Your task to perform on an android device: Go to notification settings Image 0: 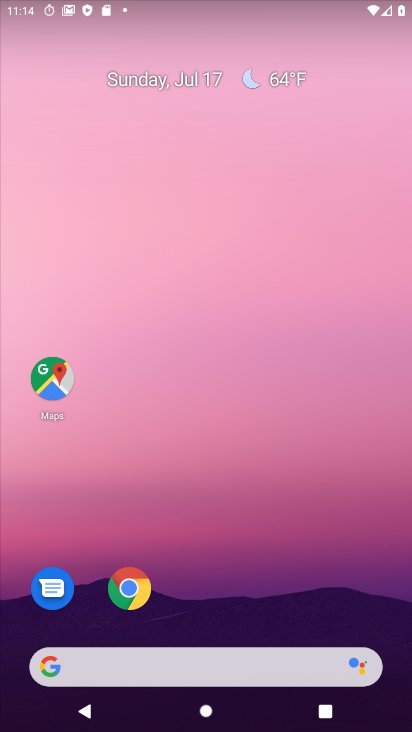
Step 0: drag from (284, 645) to (345, 199)
Your task to perform on an android device: Go to notification settings Image 1: 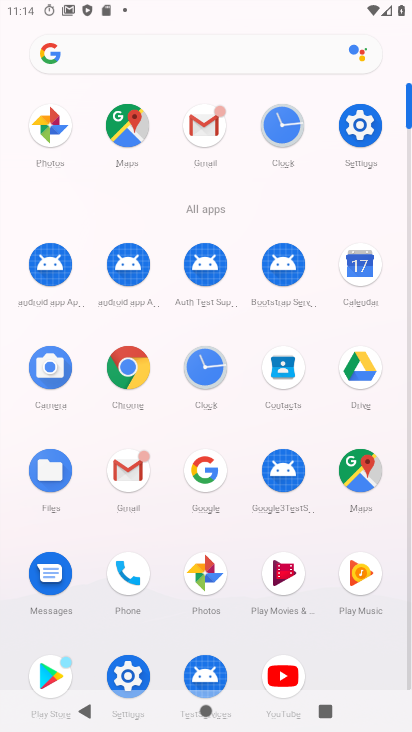
Step 1: click (118, 672)
Your task to perform on an android device: Go to notification settings Image 2: 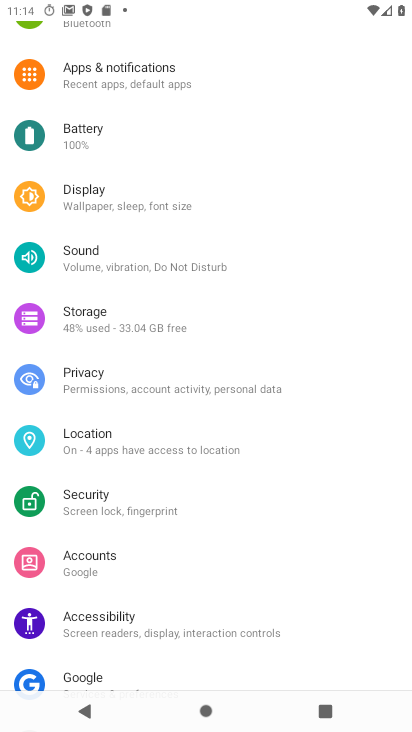
Step 2: click (156, 86)
Your task to perform on an android device: Go to notification settings Image 3: 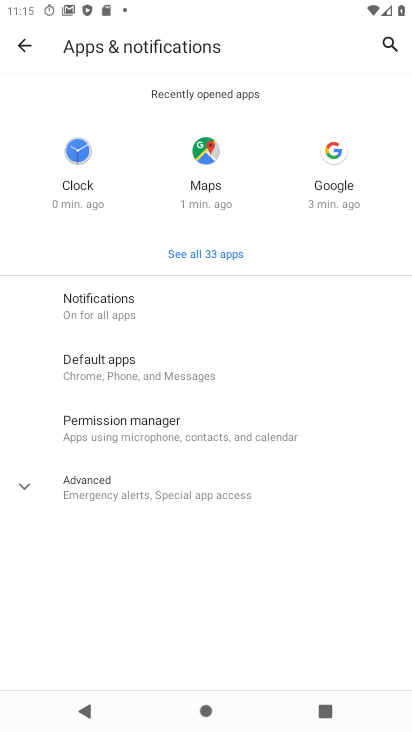
Step 3: click (160, 301)
Your task to perform on an android device: Go to notification settings Image 4: 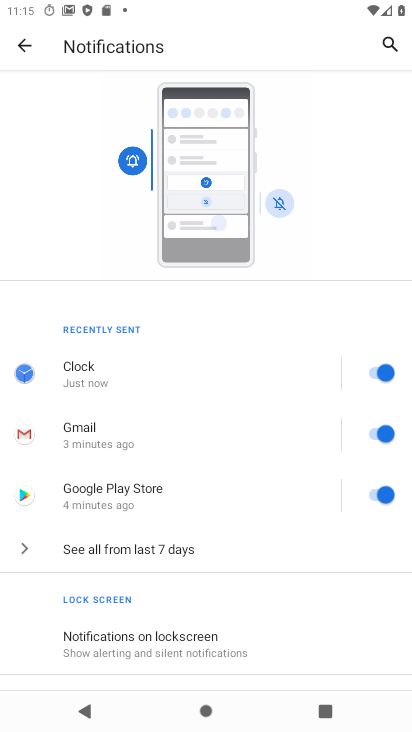
Step 4: task complete